Your task to perform on an android device: toggle translation in the chrome app Image 0: 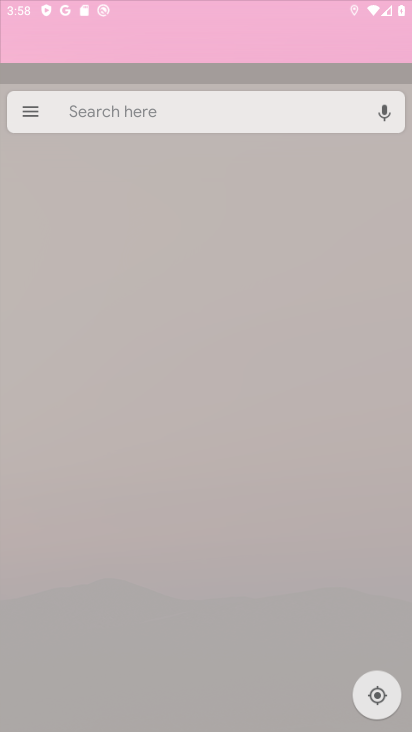
Step 0: drag from (296, 407) to (236, 7)
Your task to perform on an android device: toggle translation in the chrome app Image 1: 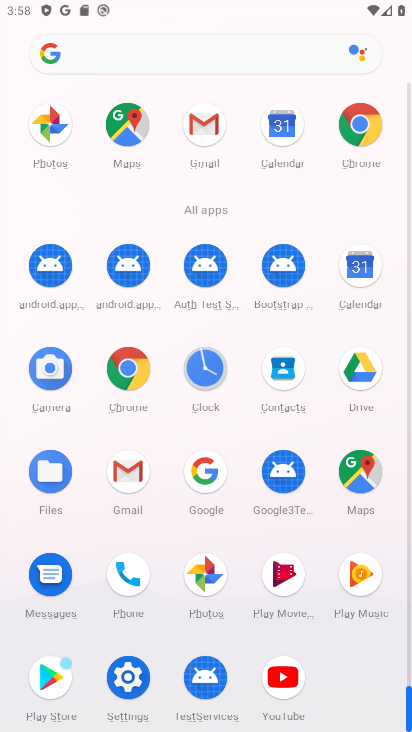
Step 1: click (127, 366)
Your task to perform on an android device: toggle translation in the chrome app Image 2: 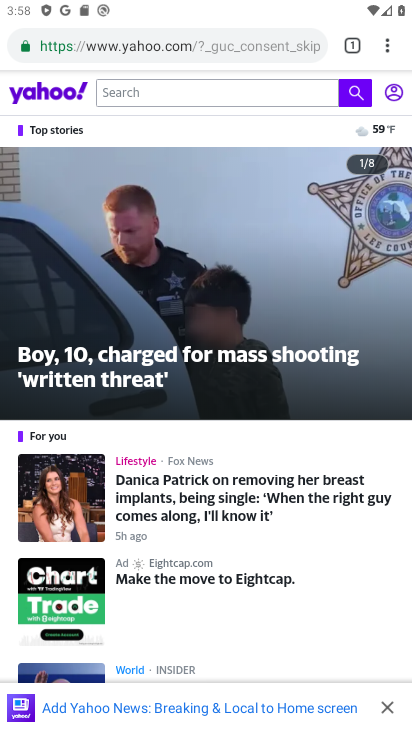
Step 2: drag from (392, 51) to (235, 543)
Your task to perform on an android device: toggle translation in the chrome app Image 3: 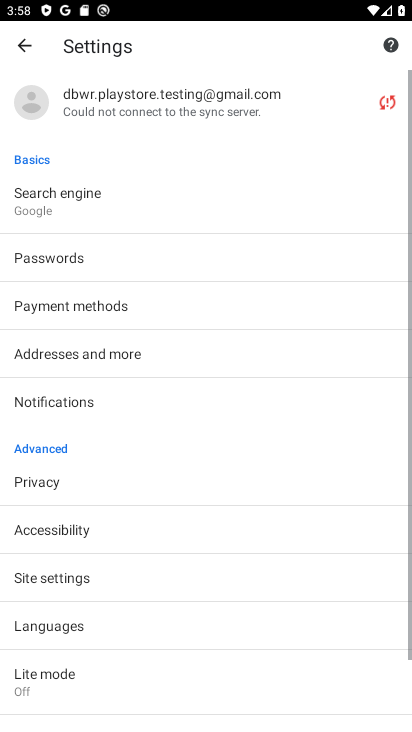
Step 3: drag from (210, 566) to (193, 177)
Your task to perform on an android device: toggle translation in the chrome app Image 4: 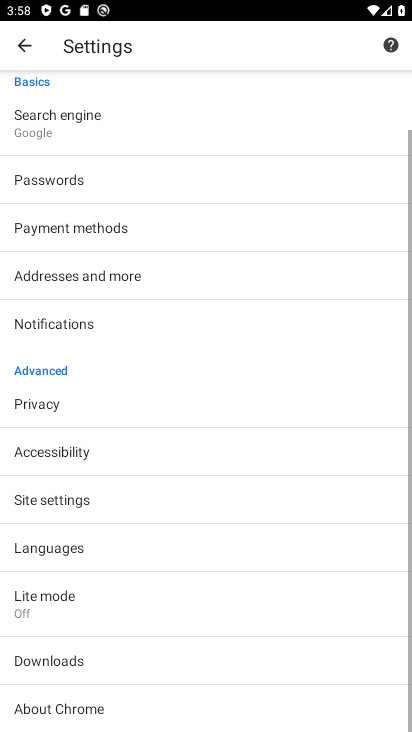
Step 4: click (92, 550)
Your task to perform on an android device: toggle translation in the chrome app Image 5: 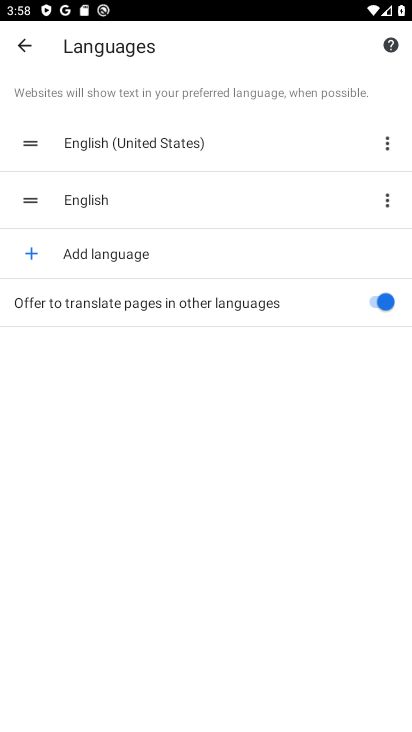
Step 5: click (375, 300)
Your task to perform on an android device: toggle translation in the chrome app Image 6: 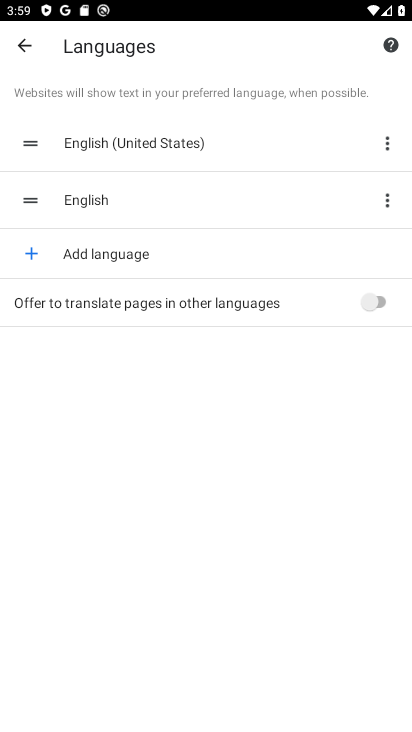
Step 6: task complete